Your task to perform on an android device: Open the web browser Image 0: 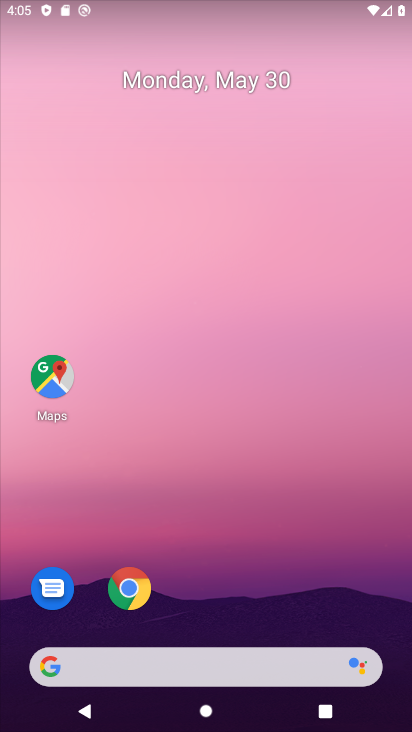
Step 0: click (180, 670)
Your task to perform on an android device: Open the web browser Image 1: 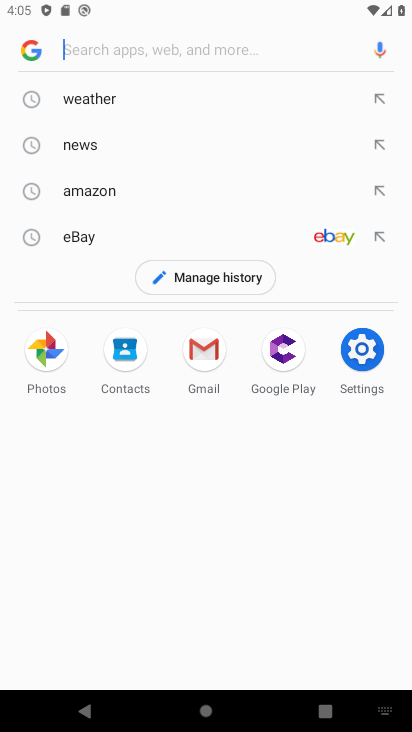
Step 1: task complete